Your task to perform on an android device: turn on notifications settings in the gmail app Image 0: 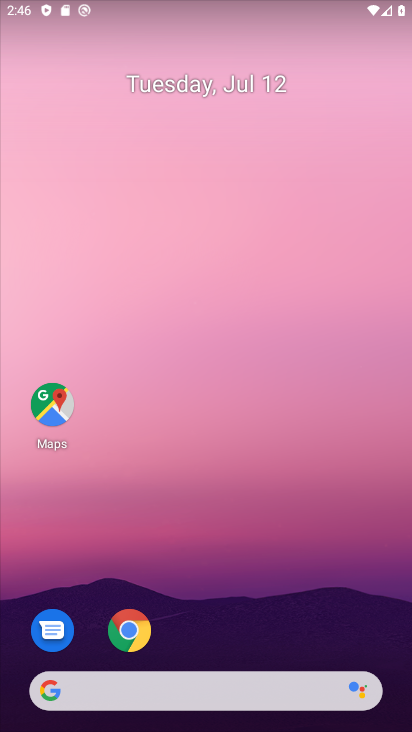
Step 0: drag from (244, 566) to (293, 4)
Your task to perform on an android device: turn on notifications settings in the gmail app Image 1: 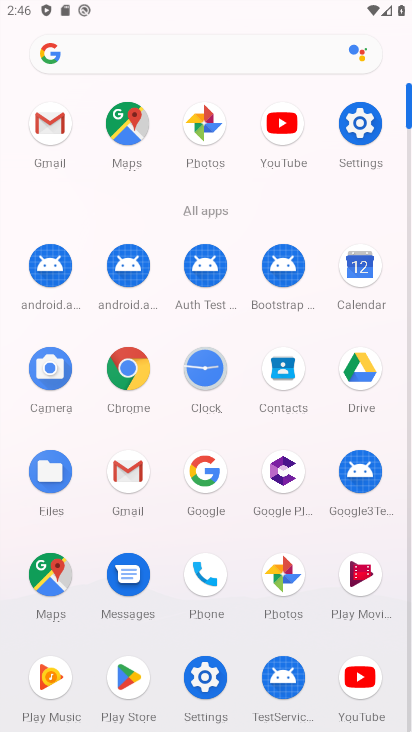
Step 1: click (132, 479)
Your task to perform on an android device: turn on notifications settings in the gmail app Image 2: 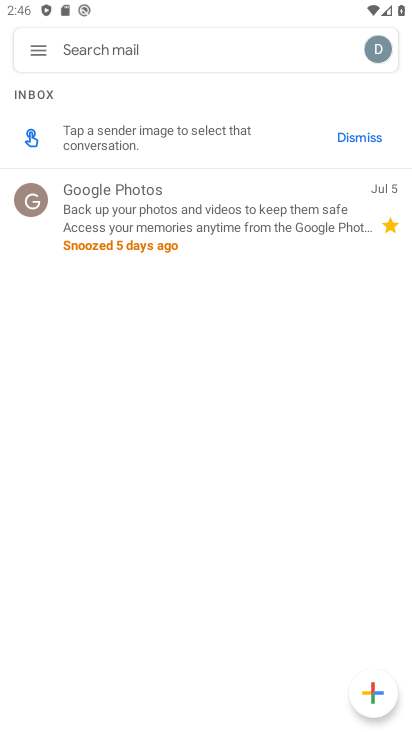
Step 2: click (39, 43)
Your task to perform on an android device: turn on notifications settings in the gmail app Image 3: 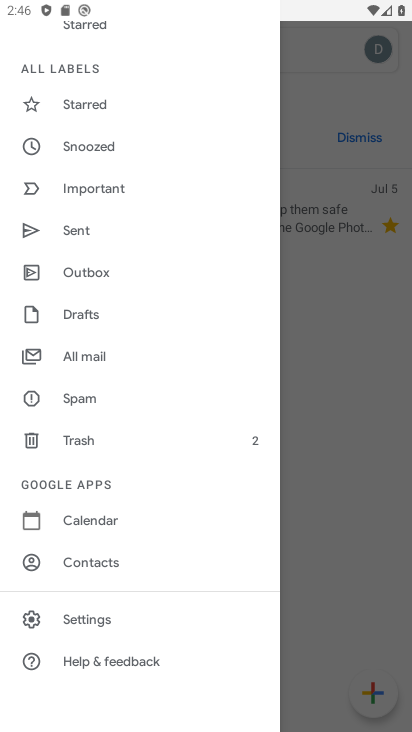
Step 3: click (125, 622)
Your task to perform on an android device: turn on notifications settings in the gmail app Image 4: 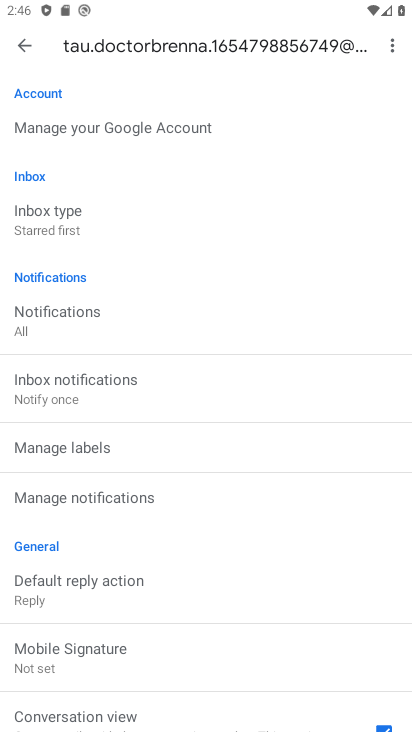
Step 4: click (183, 484)
Your task to perform on an android device: turn on notifications settings in the gmail app Image 5: 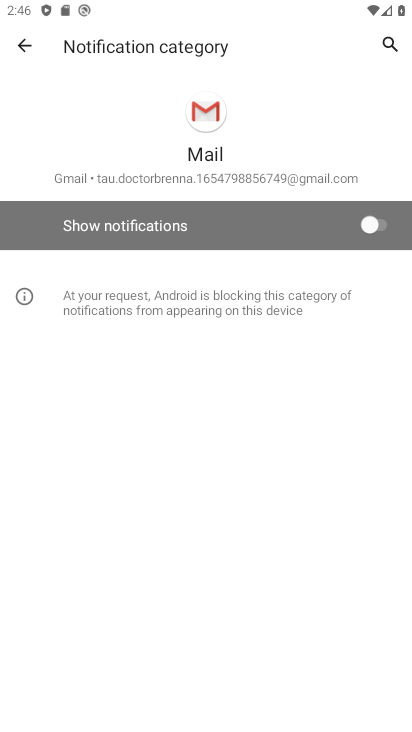
Step 5: click (379, 219)
Your task to perform on an android device: turn on notifications settings in the gmail app Image 6: 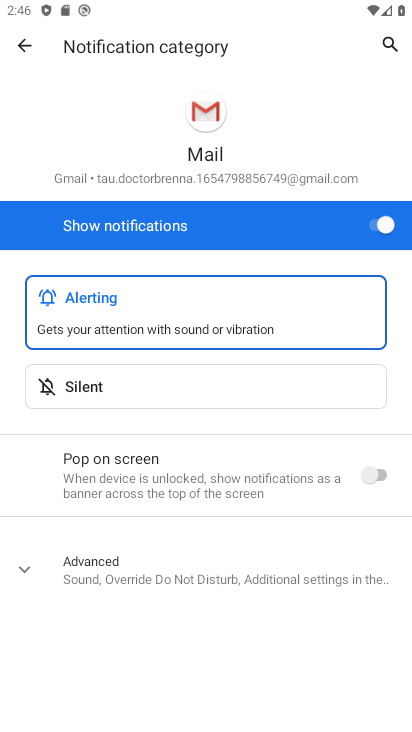
Step 6: task complete